Your task to perform on an android device: change your default location settings in chrome Image 0: 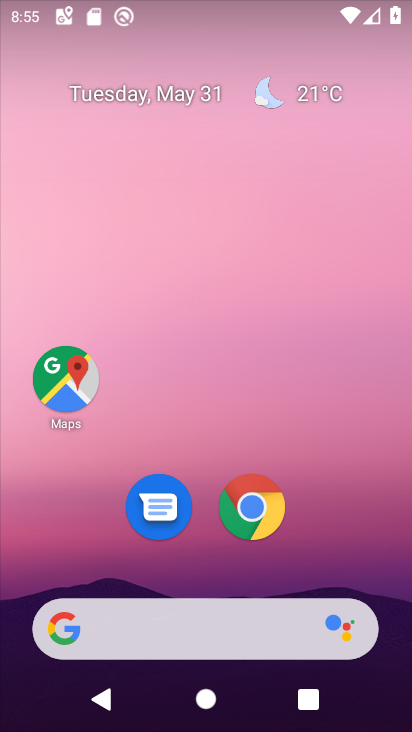
Step 0: drag from (234, 698) to (183, 0)
Your task to perform on an android device: change your default location settings in chrome Image 1: 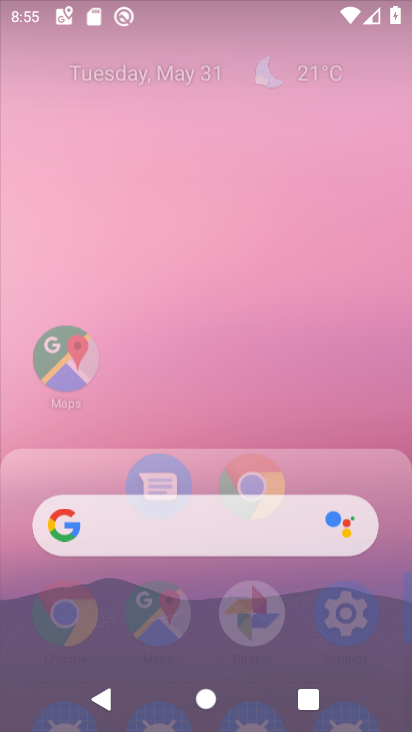
Step 1: drag from (236, 537) to (246, 9)
Your task to perform on an android device: change your default location settings in chrome Image 2: 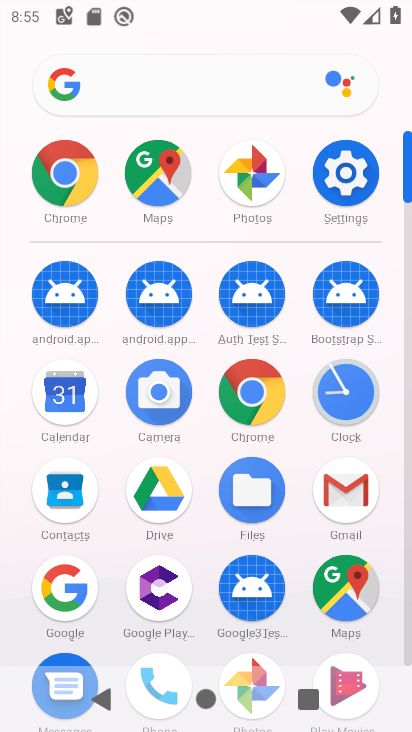
Step 2: click (249, 388)
Your task to perform on an android device: change your default location settings in chrome Image 3: 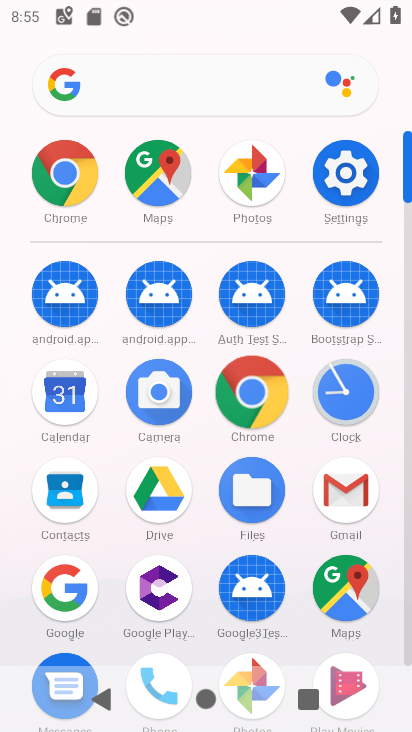
Step 3: click (249, 388)
Your task to perform on an android device: change your default location settings in chrome Image 4: 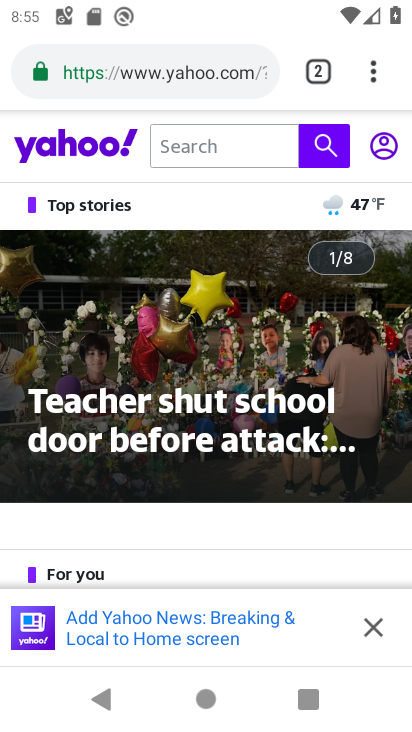
Step 4: click (152, 21)
Your task to perform on an android device: change your default location settings in chrome Image 5: 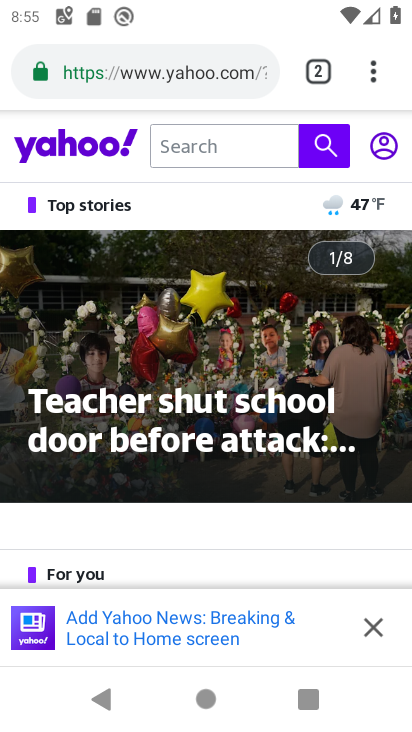
Step 5: drag from (198, 344) to (210, 5)
Your task to perform on an android device: change your default location settings in chrome Image 6: 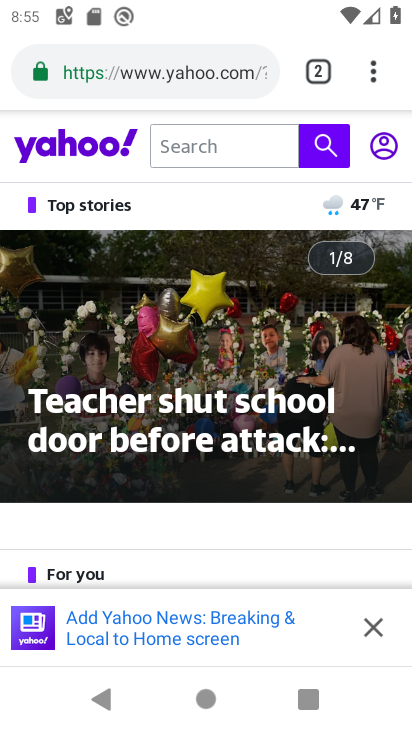
Step 6: drag from (371, 78) to (115, 500)
Your task to perform on an android device: change your default location settings in chrome Image 7: 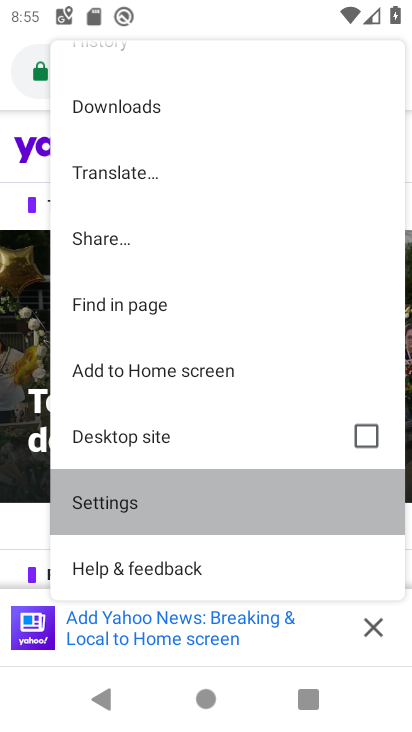
Step 7: click (115, 500)
Your task to perform on an android device: change your default location settings in chrome Image 8: 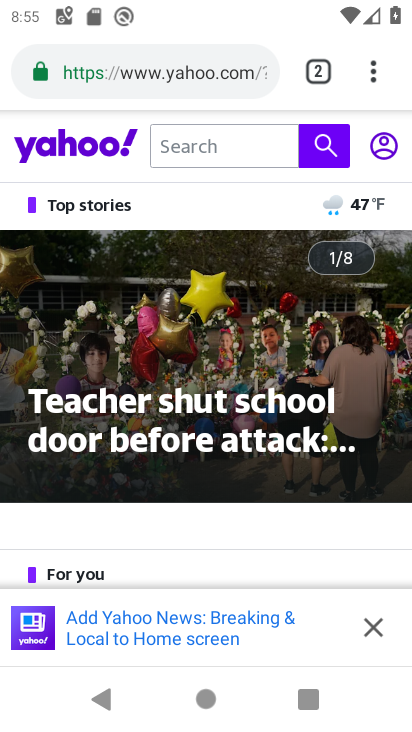
Step 8: click (115, 500)
Your task to perform on an android device: change your default location settings in chrome Image 9: 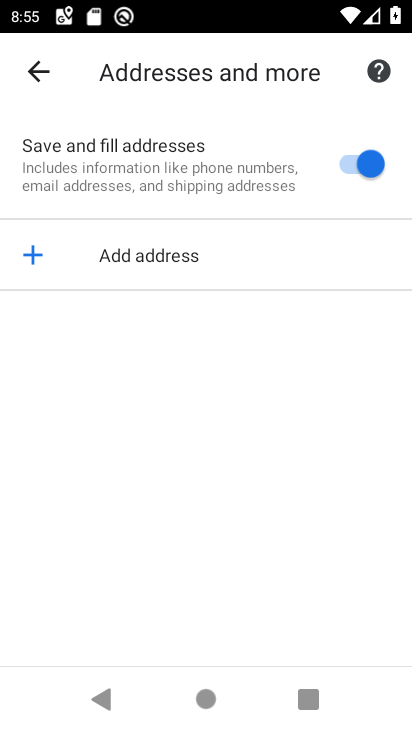
Step 9: click (32, 72)
Your task to perform on an android device: change your default location settings in chrome Image 10: 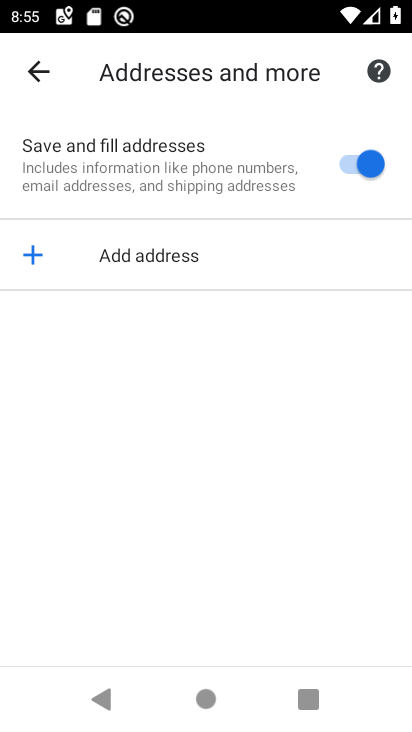
Step 10: click (31, 72)
Your task to perform on an android device: change your default location settings in chrome Image 11: 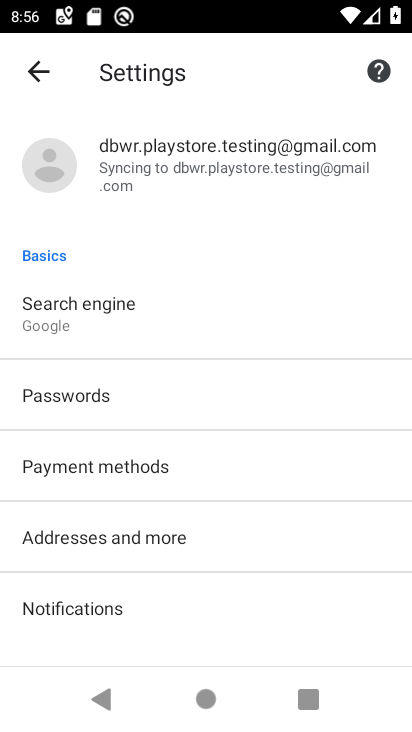
Step 11: drag from (114, 542) to (117, 187)
Your task to perform on an android device: change your default location settings in chrome Image 12: 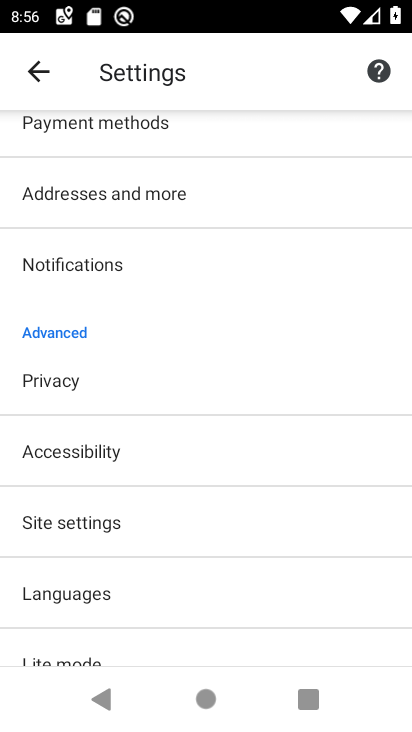
Step 12: click (61, 595)
Your task to perform on an android device: change your default location settings in chrome Image 13: 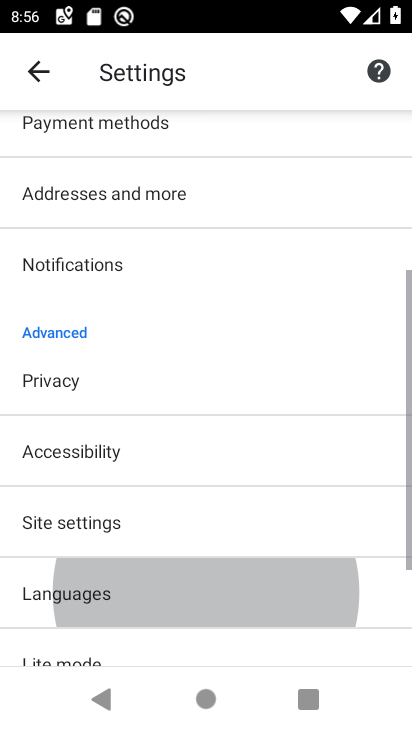
Step 13: click (61, 596)
Your task to perform on an android device: change your default location settings in chrome Image 14: 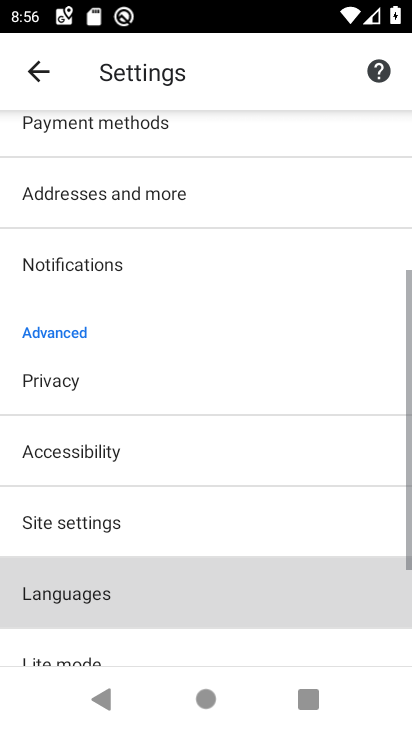
Step 14: click (61, 596)
Your task to perform on an android device: change your default location settings in chrome Image 15: 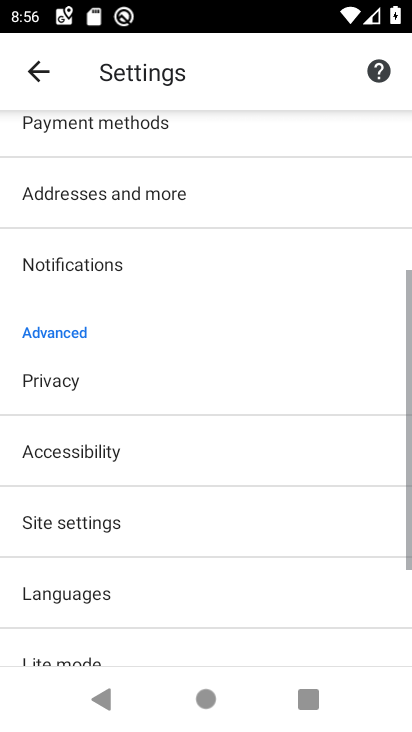
Step 15: click (57, 597)
Your task to perform on an android device: change your default location settings in chrome Image 16: 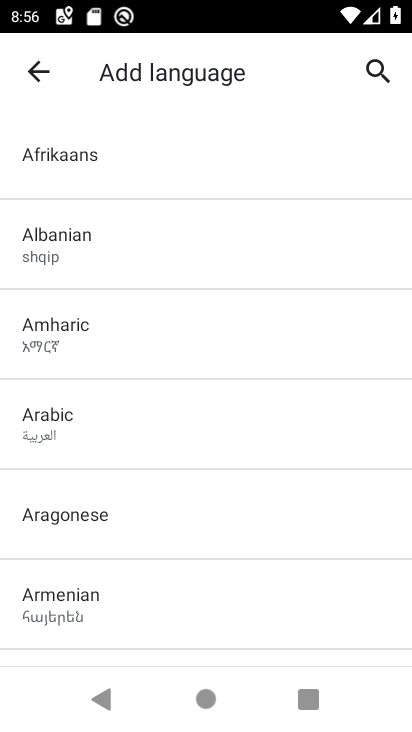
Step 16: click (38, 72)
Your task to perform on an android device: change your default location settings in chrome Image 17: 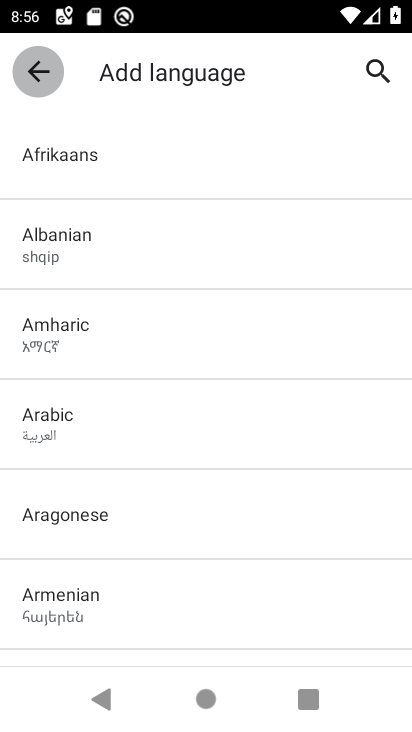
Step 17: click (38, 72)
Your task to perform on an android device: change your default location settings in chrome Image 18: 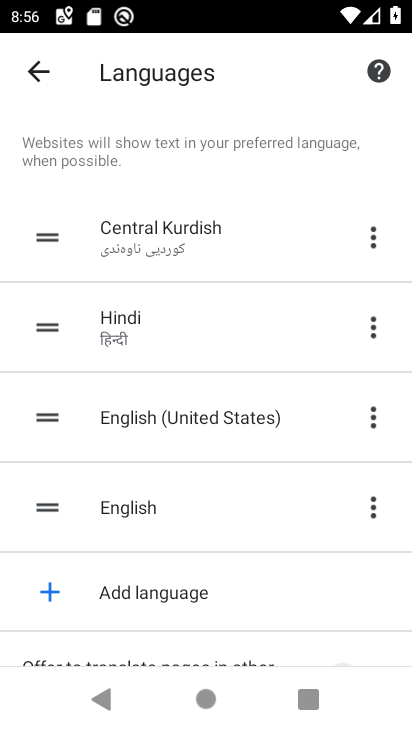
Step 18: drag from (193, 476) to (114, 167)
Your task to perform on an android device: change your default location settings in chrome Image 19: 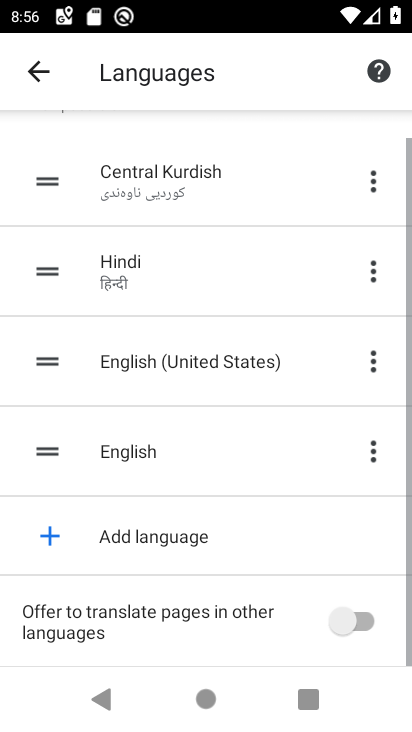
Step 19: drag from (194, 490) to (221, 130)
Your task to perform on an android device: change your default location settings in chrome Image 20: 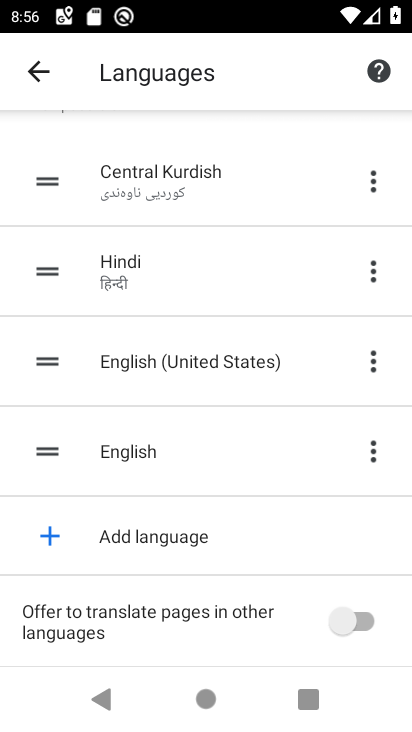
Step 20: drag from (251, 474) to (251, 149)
Your task to perform on an android device: change your default location settings in chrome Image 21: 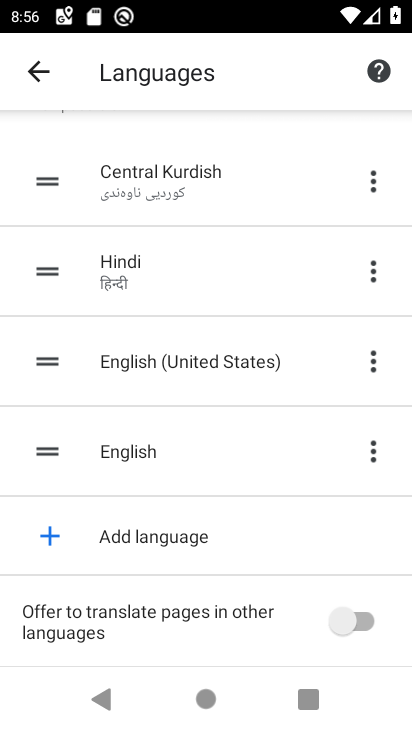
Step 21: drag from (213, 480) to (197, 128)
Your task to perform on an android device: change your default location settings in chrome Image 22: 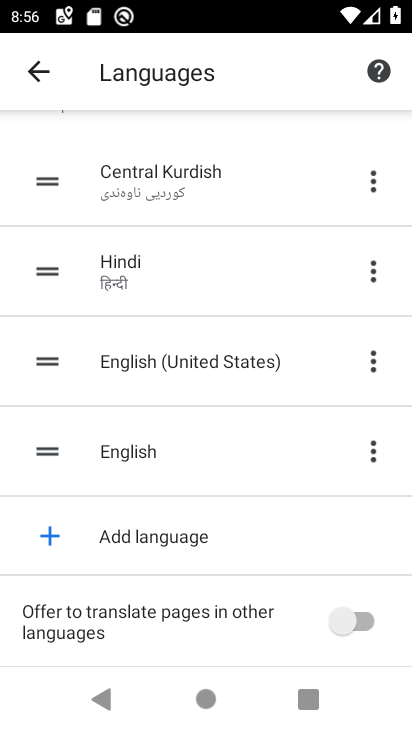
Step 22: drag from (215, 487) to (182, 84)
Your task to perform on an android device: change your default location settings in chrome Image 23: 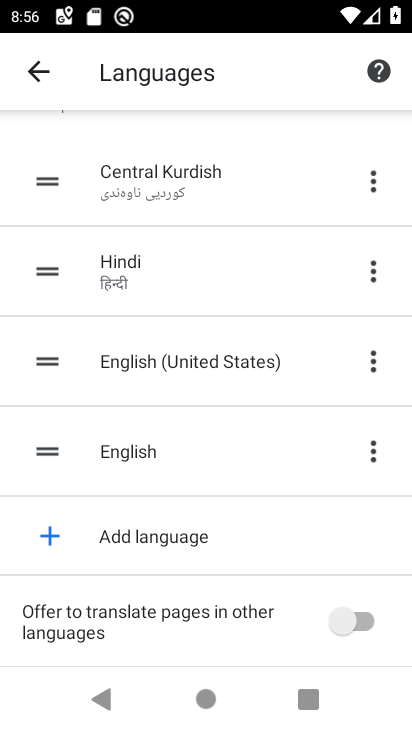
Step 23: drag from (198, 485) to (187, 109)
Your task to perform on an android device: change your default location settings in chrome Image 24: 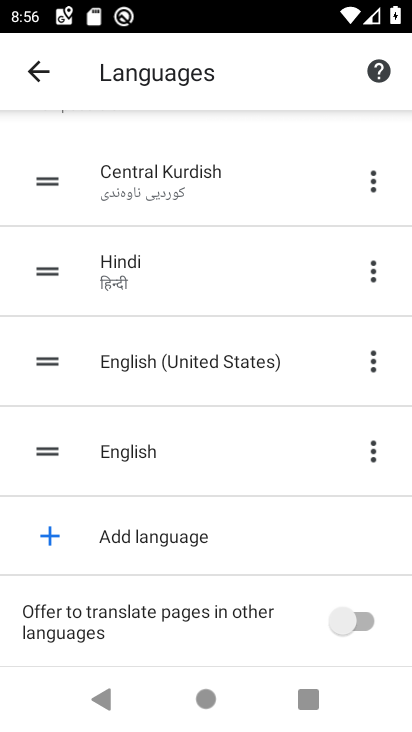
Step 24: click (42, 71)
Your task to perform on an android device: change your default location settings in chrome Image 25: 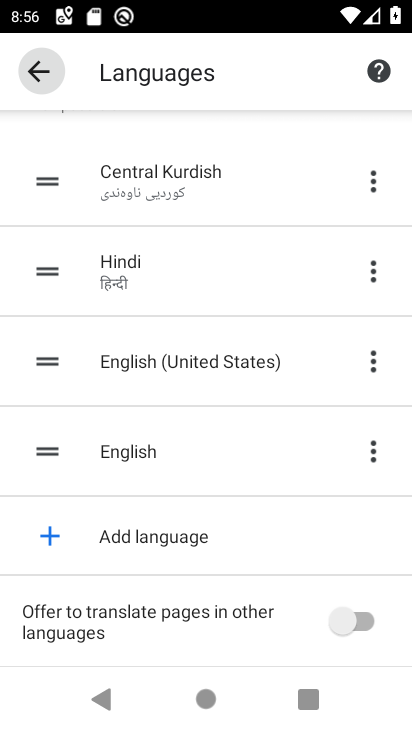
Step 25: click (42, 71)
Your task to perform on an android device: change your default location settings in chrome Image 26: 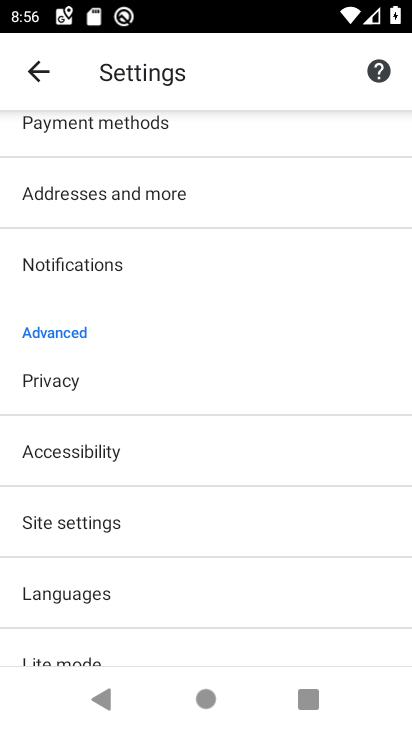
Step 26: click (38, 75)
Your task to perform on an android device: change your default location settings in chrome Image 27: 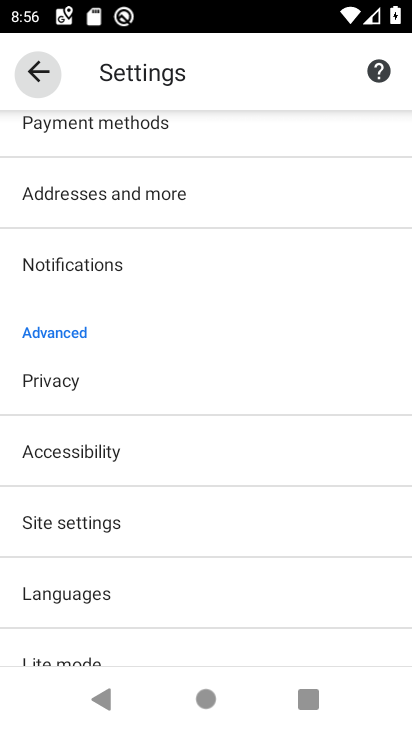
Step 27: click (36, 67)
Your task to perform on an android device: change your default location settings in chrome Image 28: 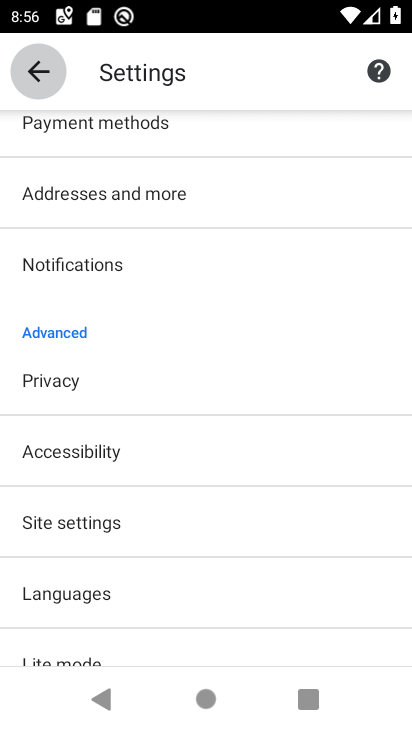
Step 28: click (36, 67)
Your task to perform on an android device: change your default location settings in chrome Image 29: 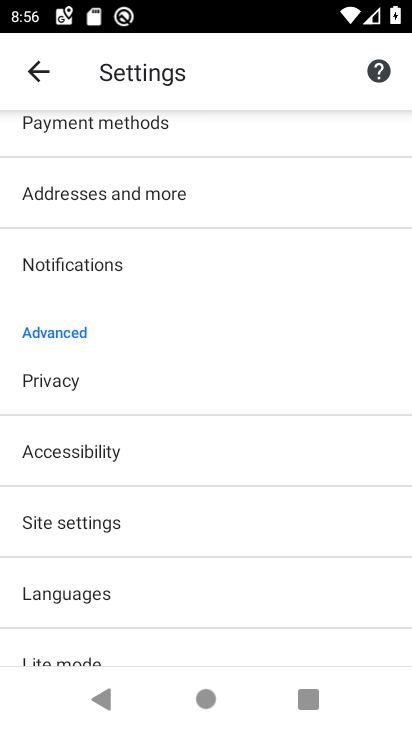
Step 29: click (35, 67)
Your task to perform on an android device: change your default location settings in chrome Image 30: 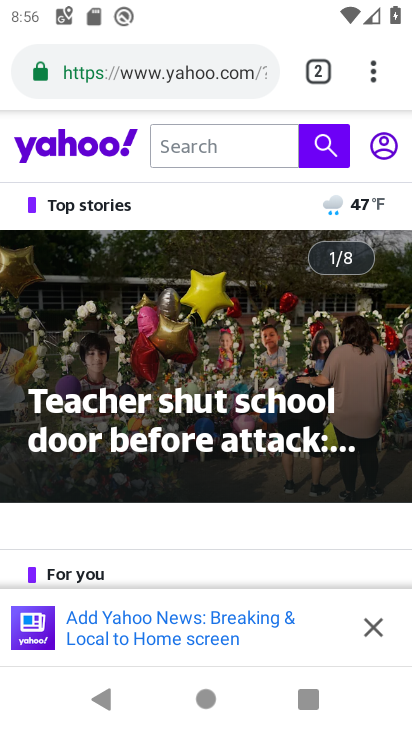
Step 30: drag from (371, 79) to (104, 506)
Your task to perform on an android device: change your default location settings in chrome Image 31: 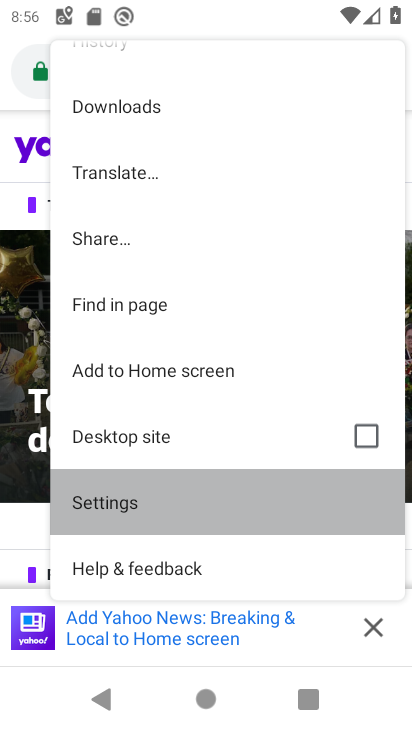
Step 31: click (102, 500)
Your task to perform on an android device: change your default location settings in chrome Image 32: 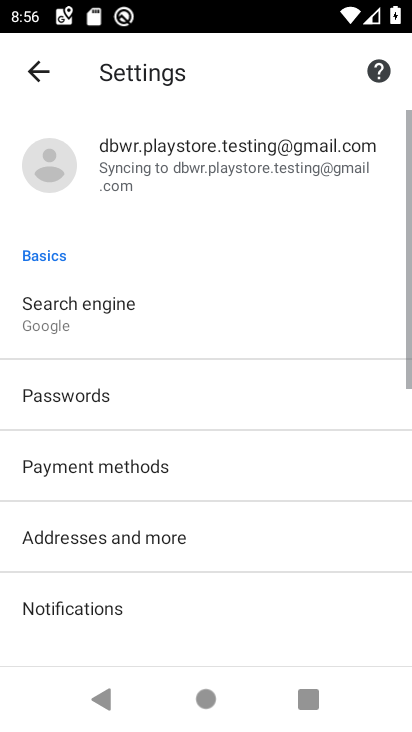
Step 32: drag from (135, 542) to (86, 130)
Your task to perform on an android device: change your default location settings in chrome Image 33: 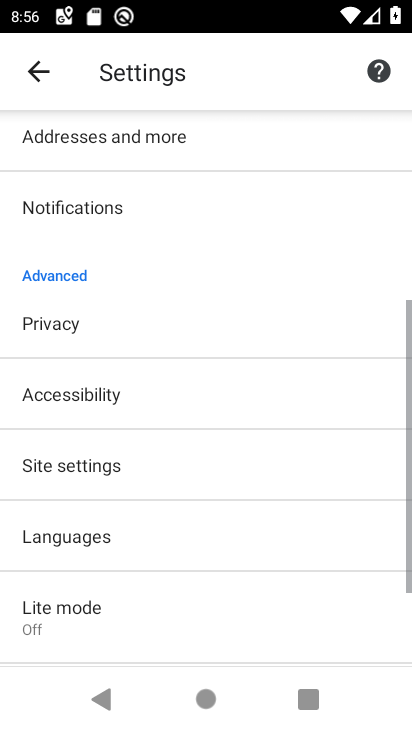
Step 33: drag from (107, 453) to (94, 20)
Your task to perform on an android device: change your default location settings in chrome Image 34: 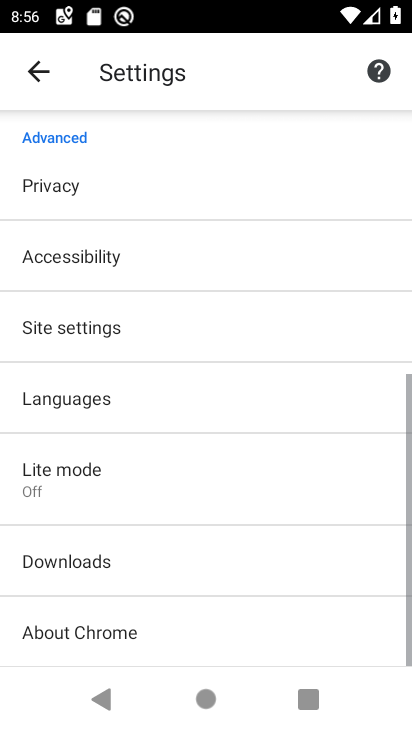
Step 34: drag from (166, 403) to (184, 50)
Your task to perform on an android device: change your default location settings in chrome Image 35: 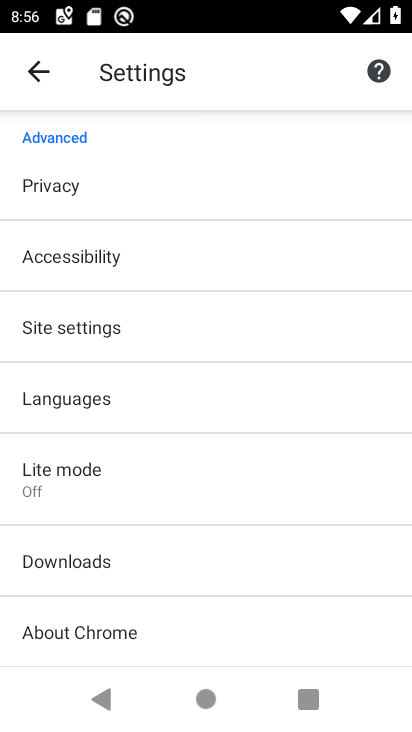
Step 35: click (64, 329)
Your task to perform on an android device: change your default location settings in chrome Image 36: 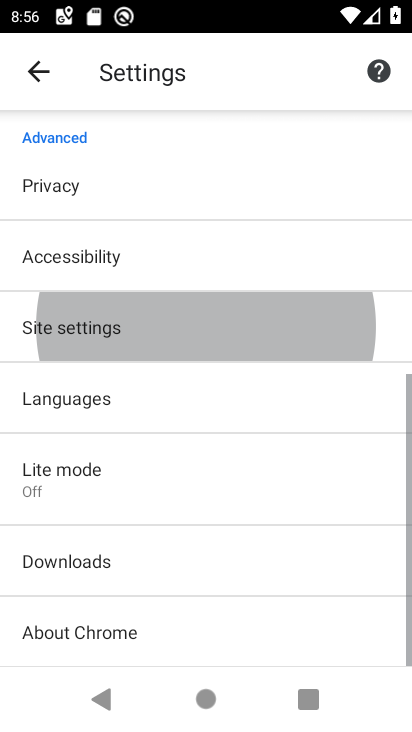
Step 36: click (64, 329)
Your task to perform on an android device: change your default location settings in chrome Image 37: 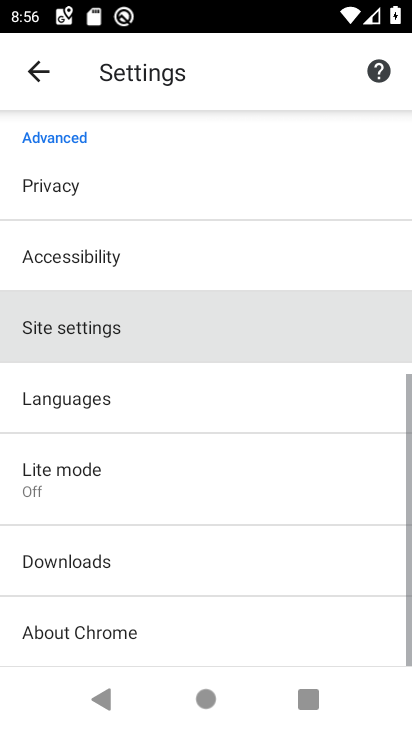
Step 37: click (64, 329)
Your task to perform on an android device: change your default location settings in chrome Image 38: 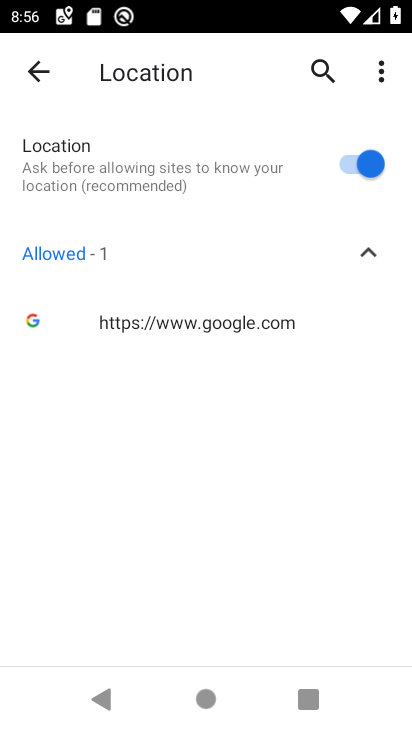
Step 38: click (42, 67)
Your task to perform on an android device: change your default location settings in chrome Image 39: 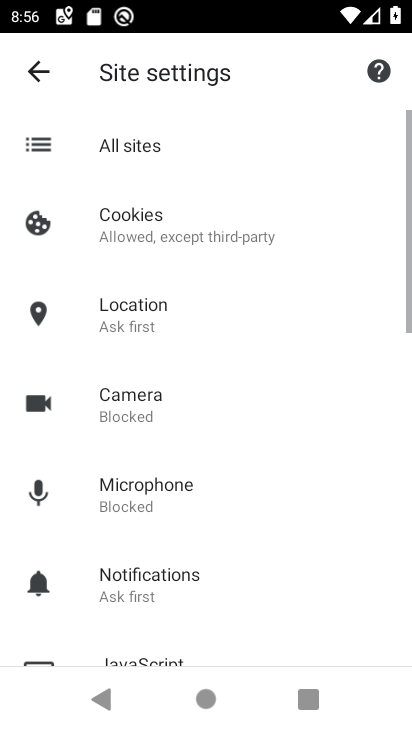
Step 39: click (130, 314)
Your task to perform on an android device: change your default location settings in chrome Image 40: 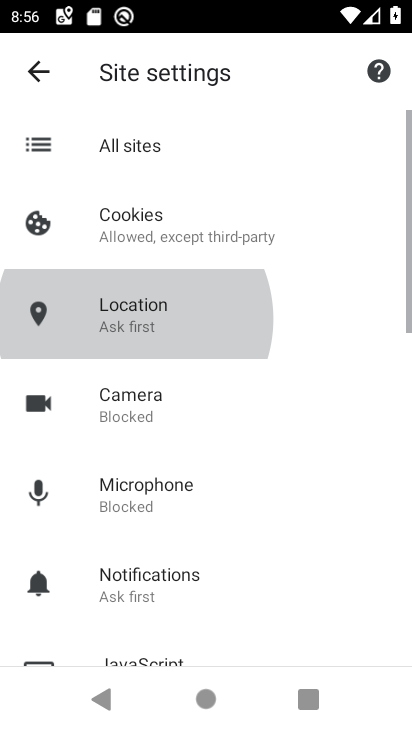
Step 40: click (130, 314)
Your task to perform on an android device: change your default location settings in chrome Image 41: 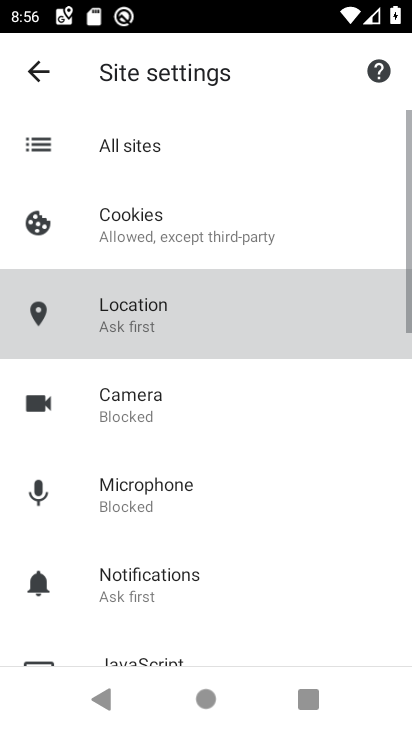
Step 41: click (130, 315)
Your task to perform on an android device: change your default location settings in chrome Image 42: 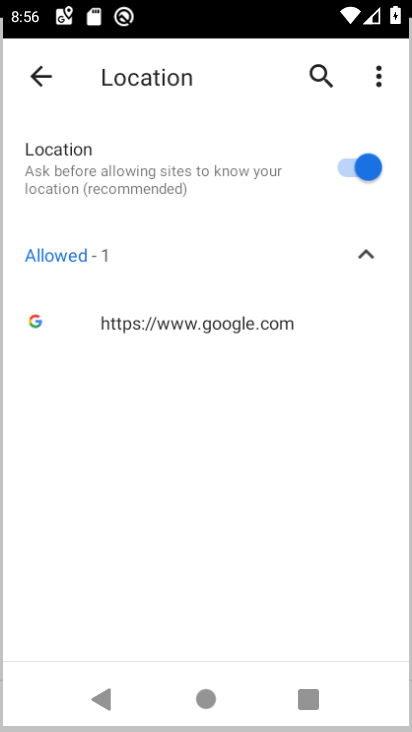
Step 42: click (130, 315)
Your task to perform on an android device: change your default location settings in chrome Image 43: 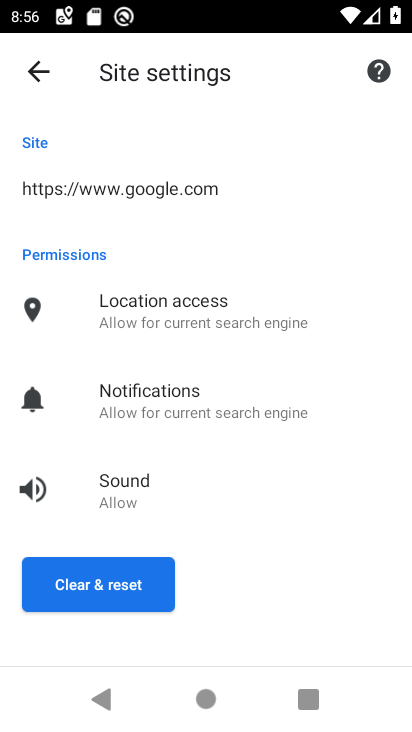
Step 43: click (30, 76)
Your task to perform on an android device: change your default location settings in chrome Image 44: 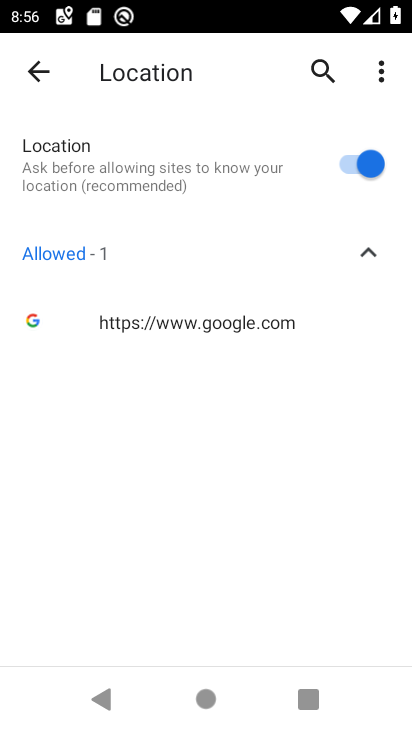
Step 44: click (370, 159)
Your task to perform on an android device: change your default location settings in chrome Image 45: 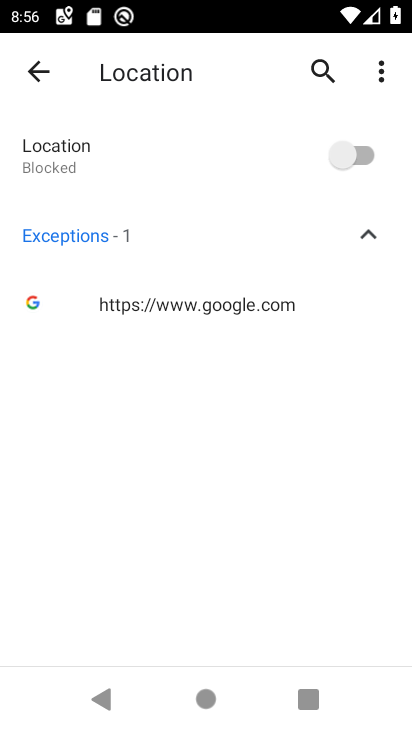
Step 45: task complete